Your task to perform on an android device: Open the web browser Image 0: 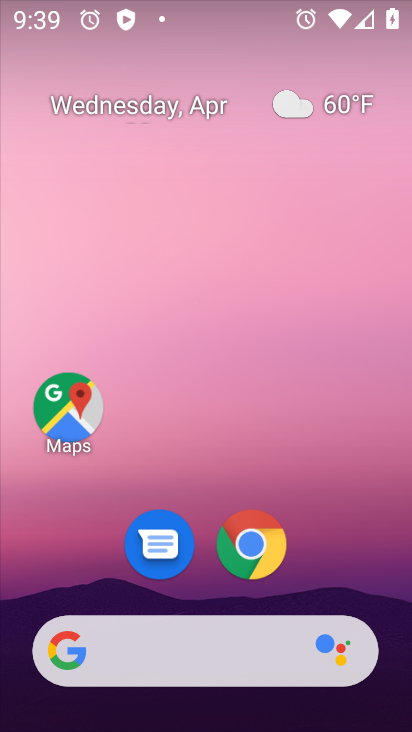
Step 0: click (274, 555)
Your task to perform on an android device: Open the web browser Image 1: 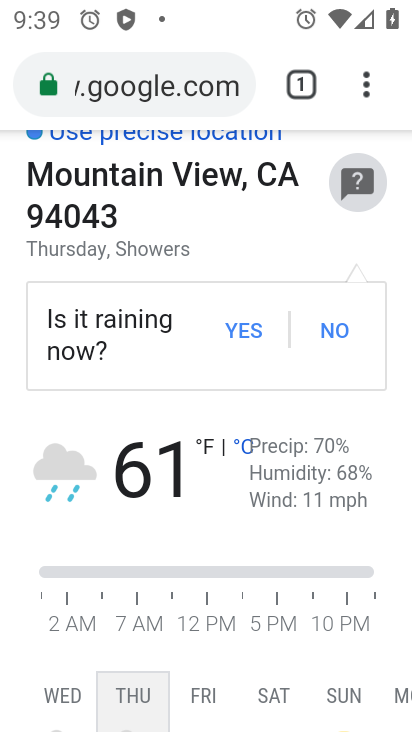
Step 1: task complete